Your task to perform on an android device: check the backup settings in the google photos Image 0: 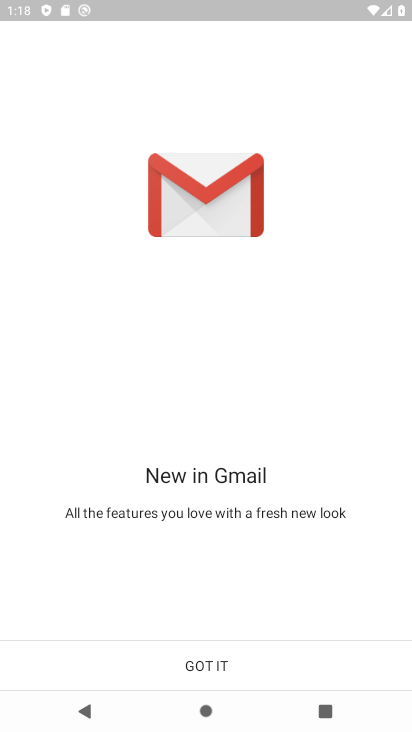
Step 0: press home button
Your task to perform on an android device: check the backup settings in the google photos Image 1: 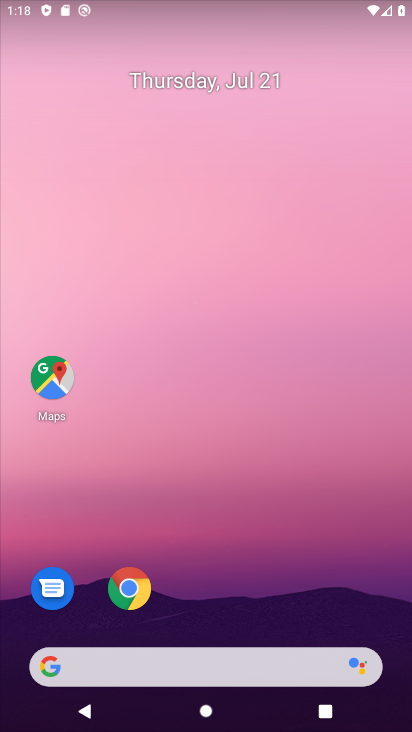
Step 1: drag from (222, 634) to (164, 72)
Your task to perform on an android device: check the backup settings in the google photos Image 2: 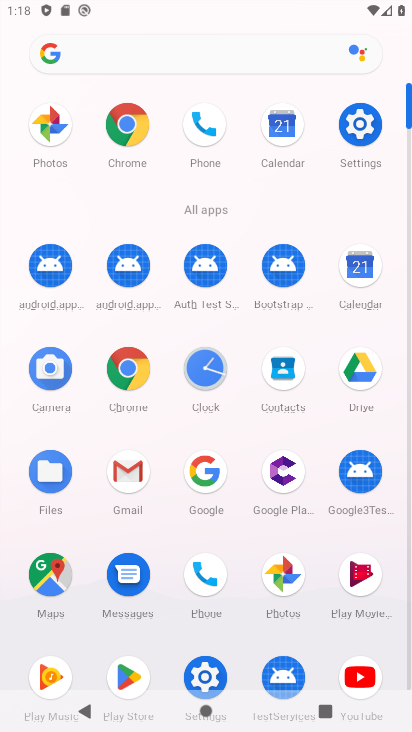
Step 2: click (275, 587)
Your task to perform on an android device: check the backup settings in the google photos Image 3: 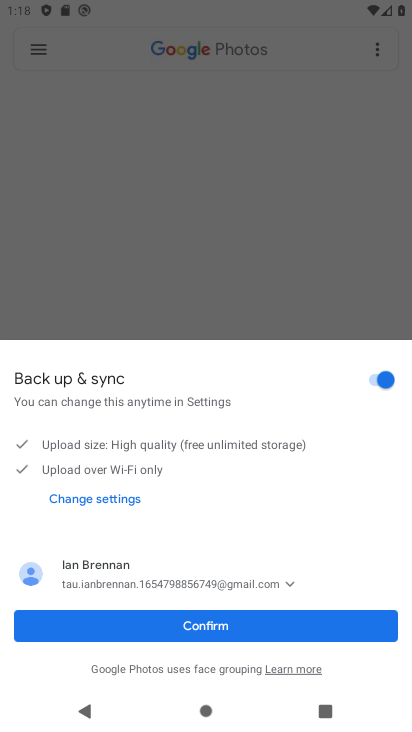
Step 3: click (216, 633)
Your task to perform on an android device: check the backup settings in the google photos Image 4: 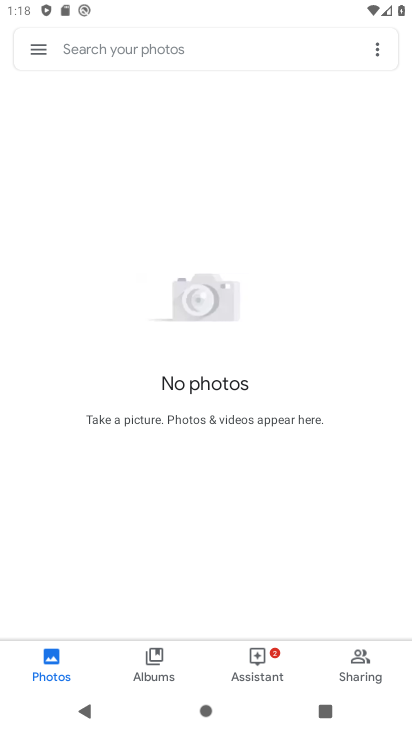
Step 4: drag from (228, 139) to (242, 524)
Your task to perform on an android device: check the backup settings in the google photos Image 5: 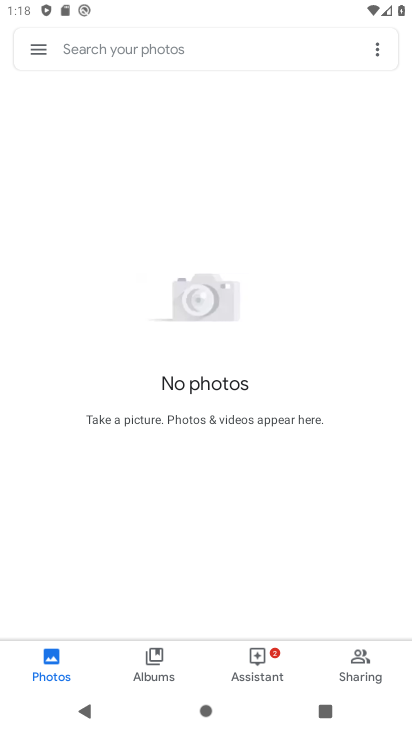
Step 5: click (32, 40)
Your task to perform on an android device: check the backup settings in the google photos Image 6: 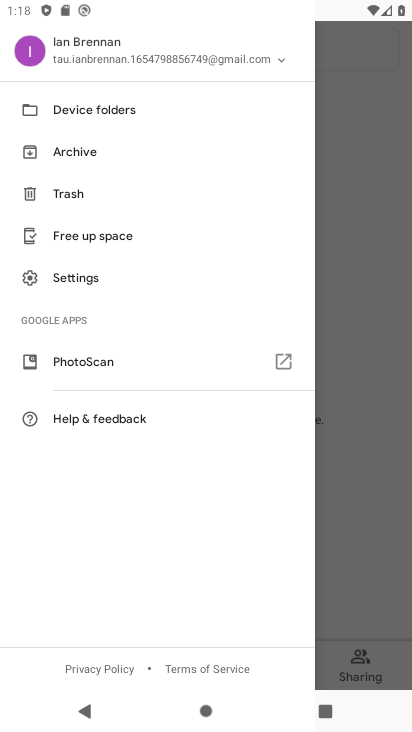
Step 6: click (44, 49)
Your task to perform on an android device: check the backup settings in the google photos Image 7: 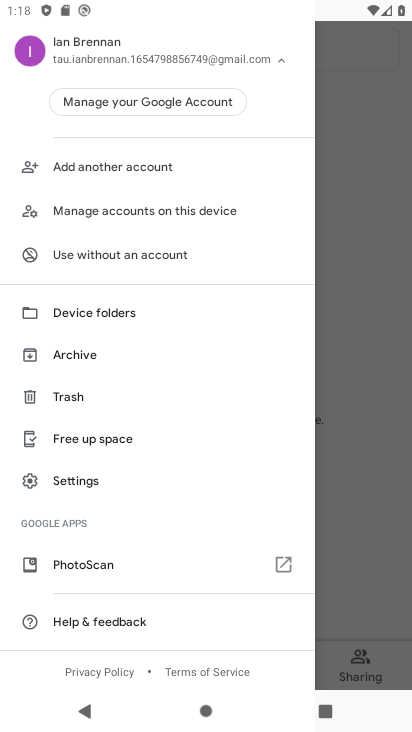
Step 7: click (50, 65)
Your task to perform on an android device: check the backup settings in the google photos Image 8: 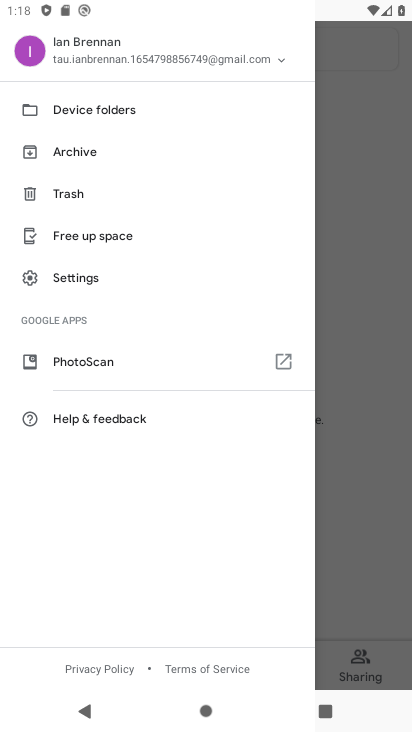
Step 8: click (49, 66)
Your task to perform on an android device: check the backup settings in the google photos Image 9: 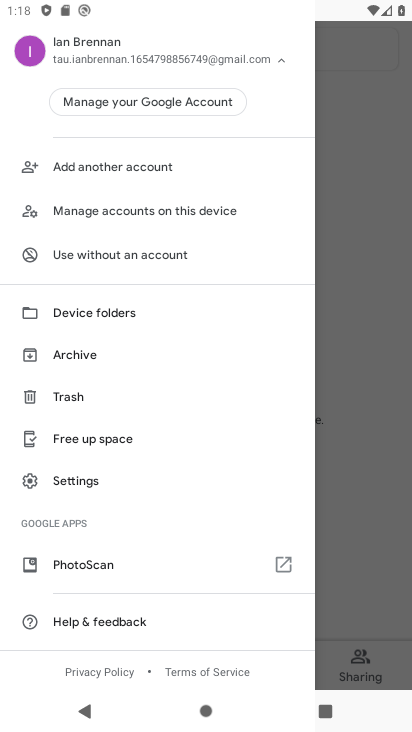
Step 9: click (80, 479)
Your task to perform on an android device: check the backup settings in the google photos Image 10: 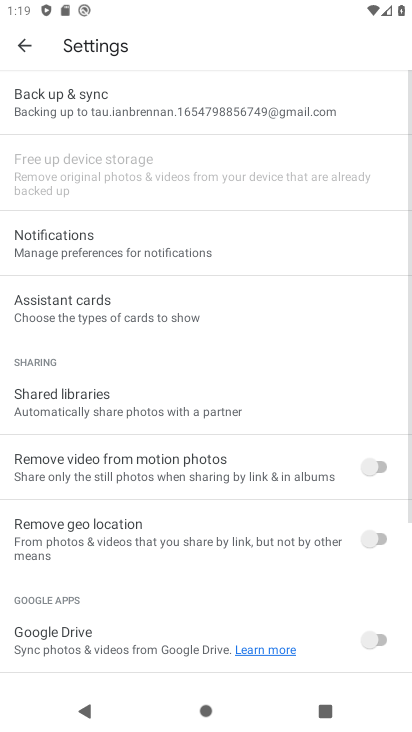
Step 10: click (76, 114)
Your task to perform on an android device: check the backup settings in the google photos Image 11: 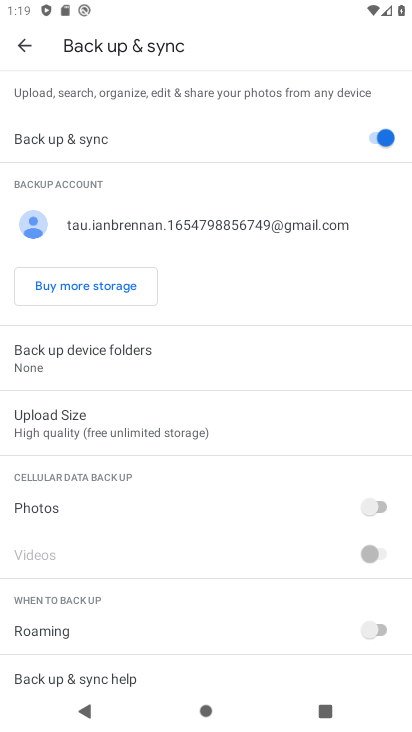
Step 11: task complete